Your task to perform on an android device: empty trash in google photos Image 0: 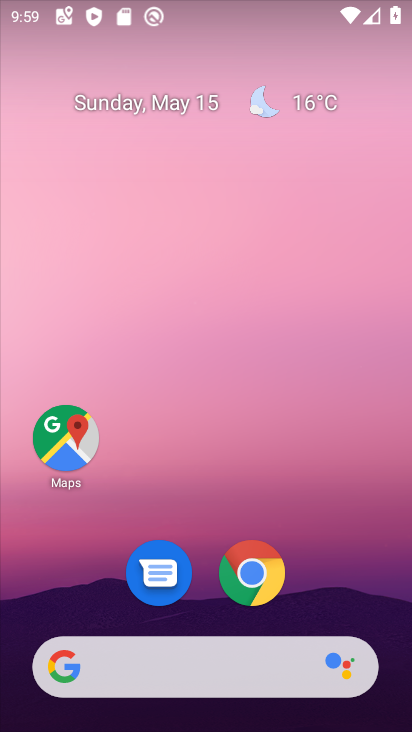
Step 0: press home button
Your task to perform on an android device: empty trash in google photos Image 1: 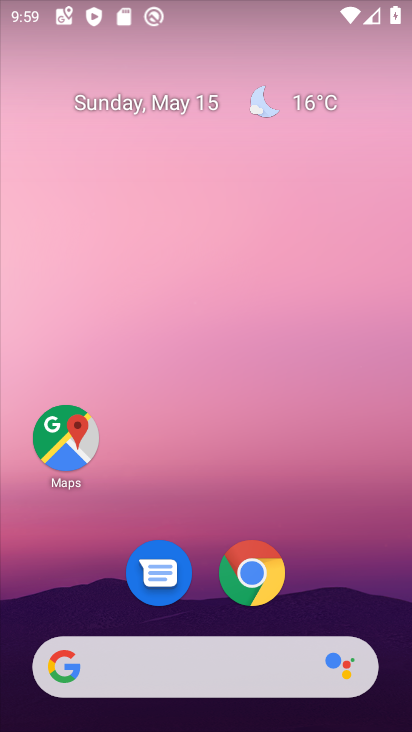
Step 1: drag from (314, 600) to (174, 194)
Your task to perform on an android device: empty trash in google photos Image 2: 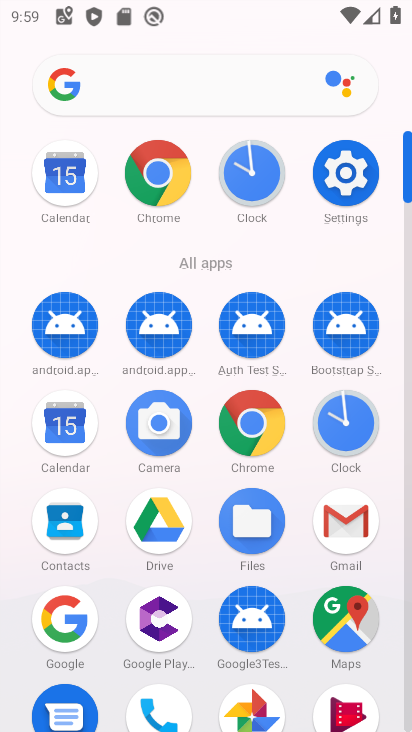
Step 2: click (407, 724)
Your task to perform on an android device: empty trash in google photos Image 3: 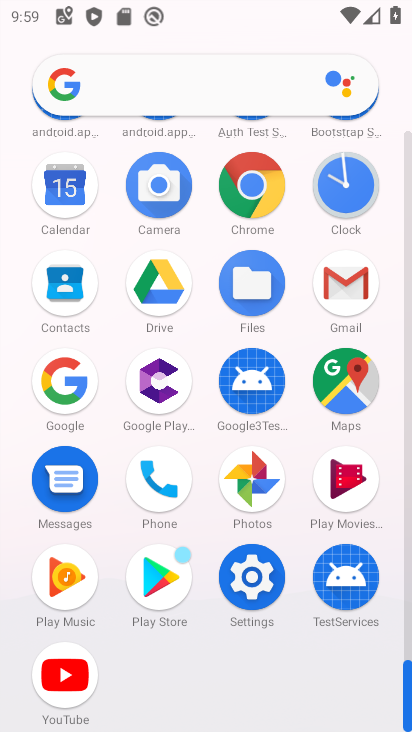
Step 3: click (258, 479)
Your task to perform on an android device: empty trash in google photos Image 4: 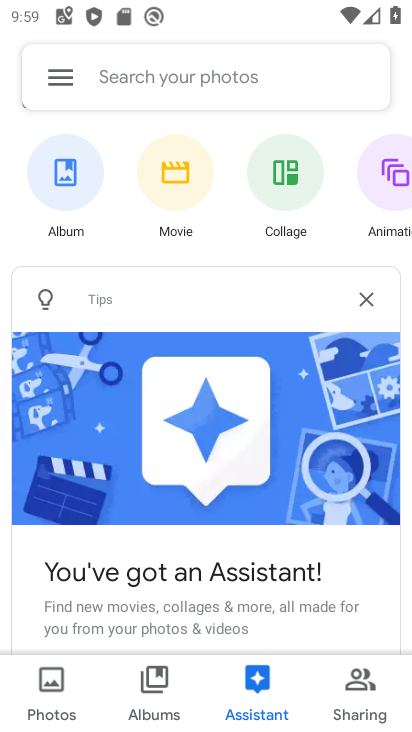
Step 4: click (73, 91)
Your task to perform on an android device: empty trash in google photos Image 5: 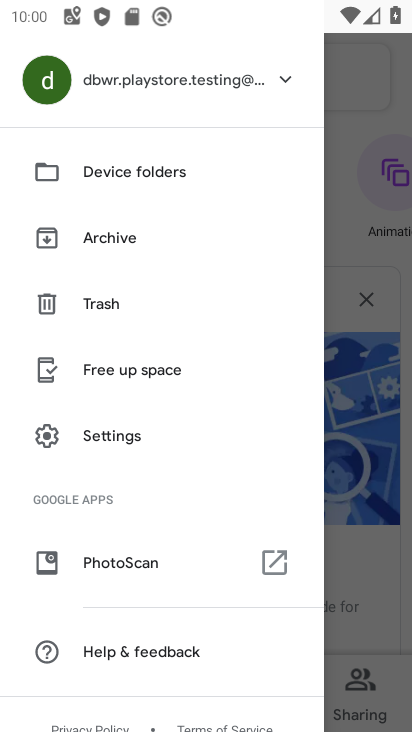
Step 5: click (113, 313)
Your task to perform on an android device: empty trash in google photos Image 6: 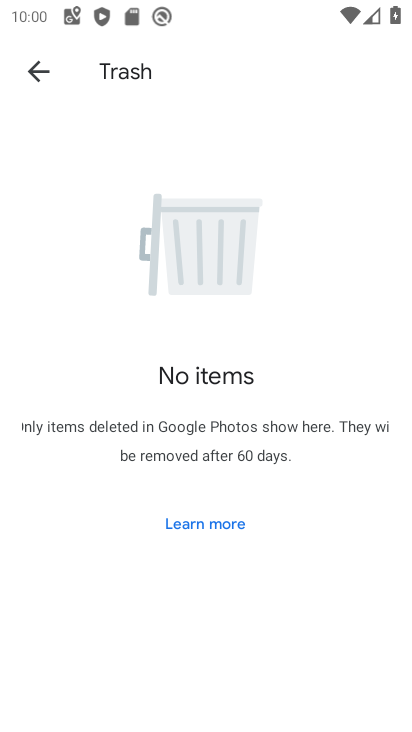
Step 6: task complete